Your task to perform on an android device: Go to Yahoo.com Image 0: 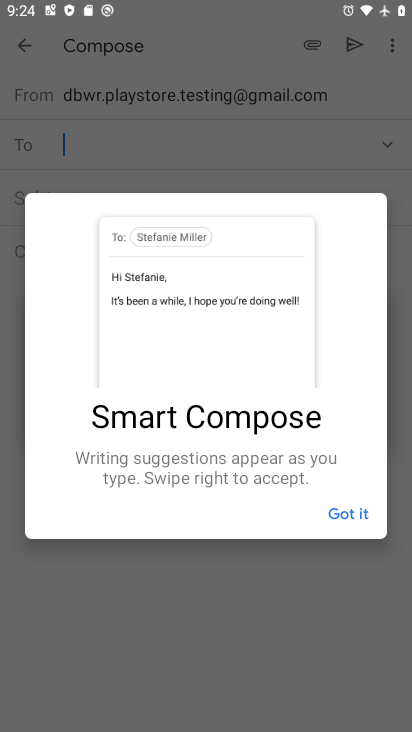
Step 0: press home button
Your task to perform on an android device: Go to Yahoo.com Image 1: 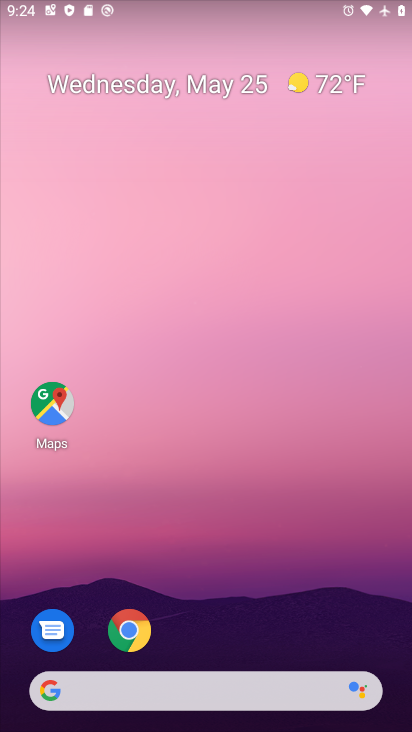
Step 1: click (137, 637)
Your task to perform on an android device: Go to Yahoo.com Image 2: 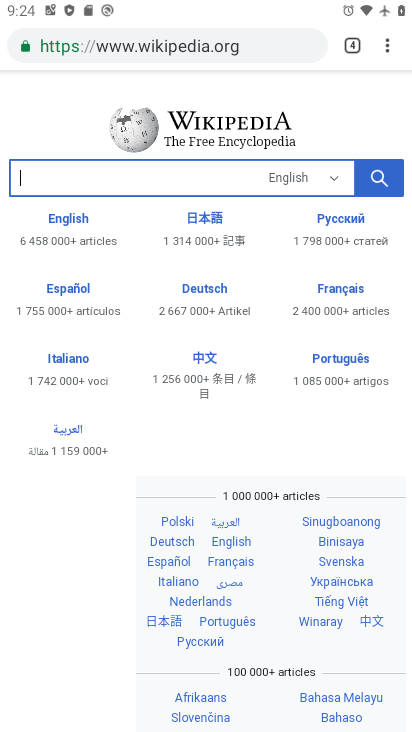
Step 2: click (354, 47)
Your task to perform on an android device: Go to Yahoo.com Image 3: 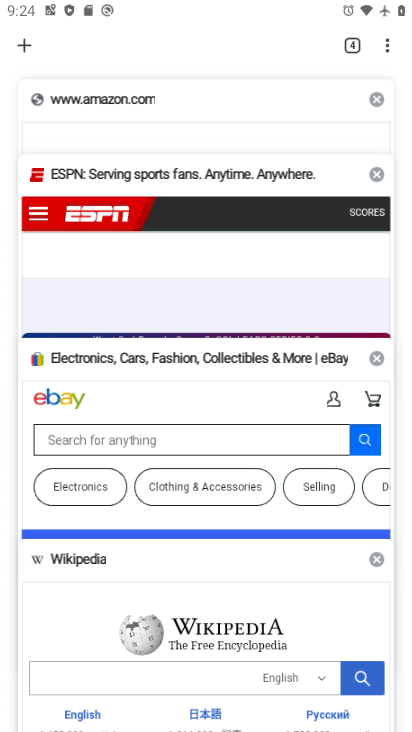
Step 3: click (24, 40)
Your task to perform on an android device: Go to Yahoo.com Image 4: 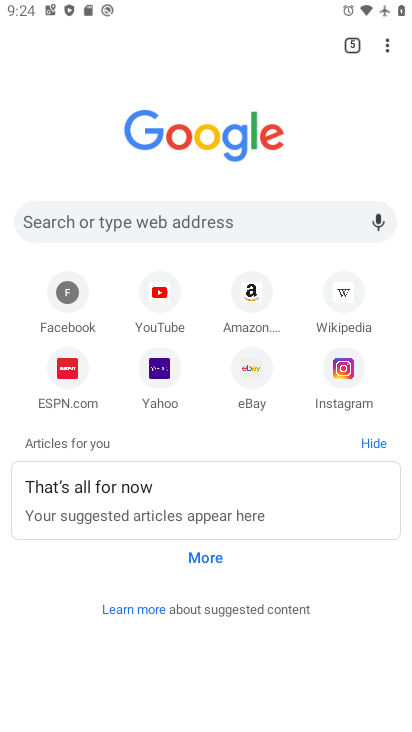
Step 4: click (171, 366)
Your task to perform on an android device: Go to Yahoo.com Image 5: 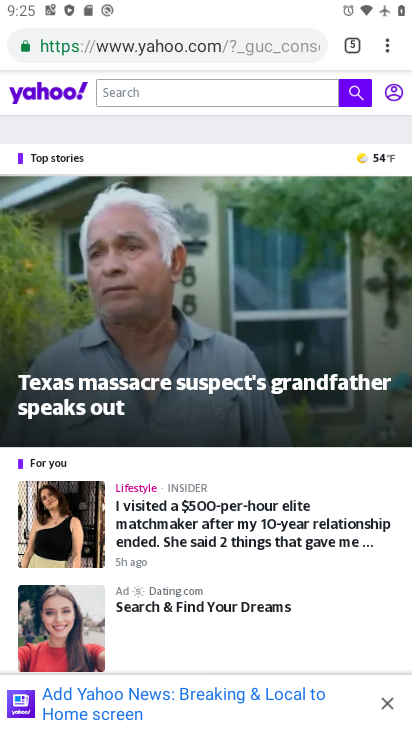
Step 5: task complete